Your task to perform on an android device: Open settings Image 0: 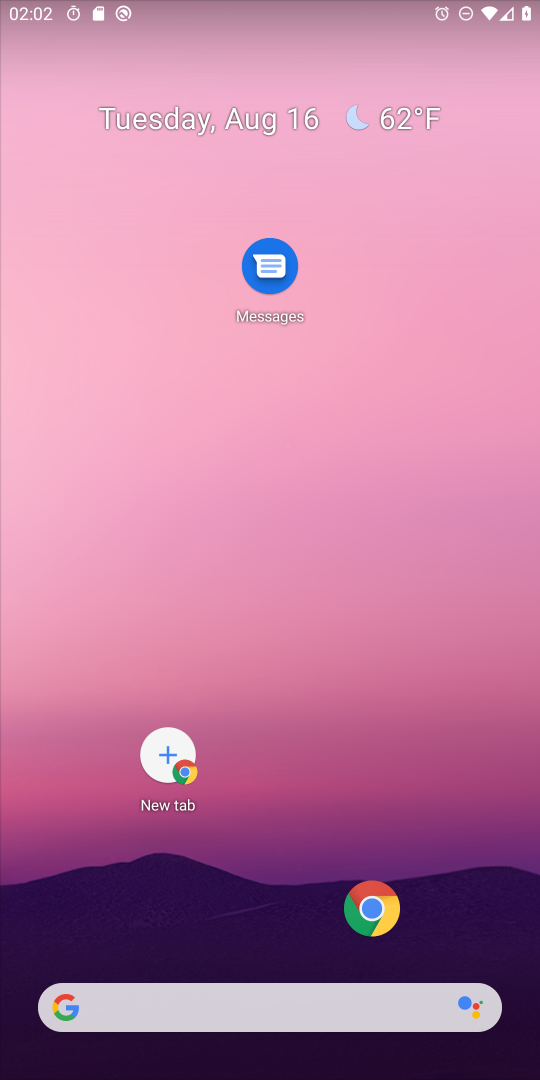
Step 0: drag from (286, 917) to (368, 72)
Your task to perform on an android device: Open settings Image 1: 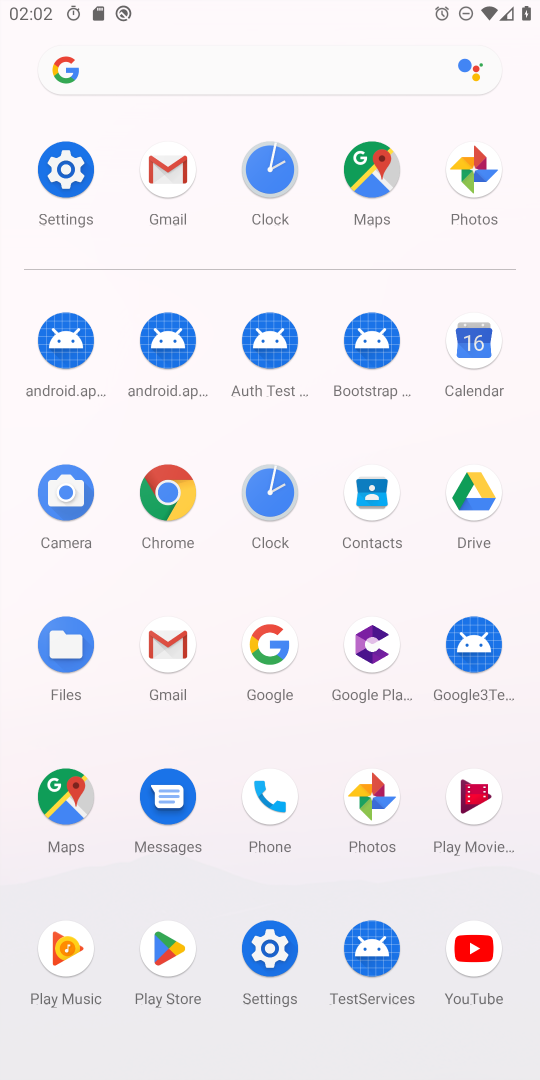
Step 1: click (72, 188)
Your task to perform on an android device: Open settings Image 2: 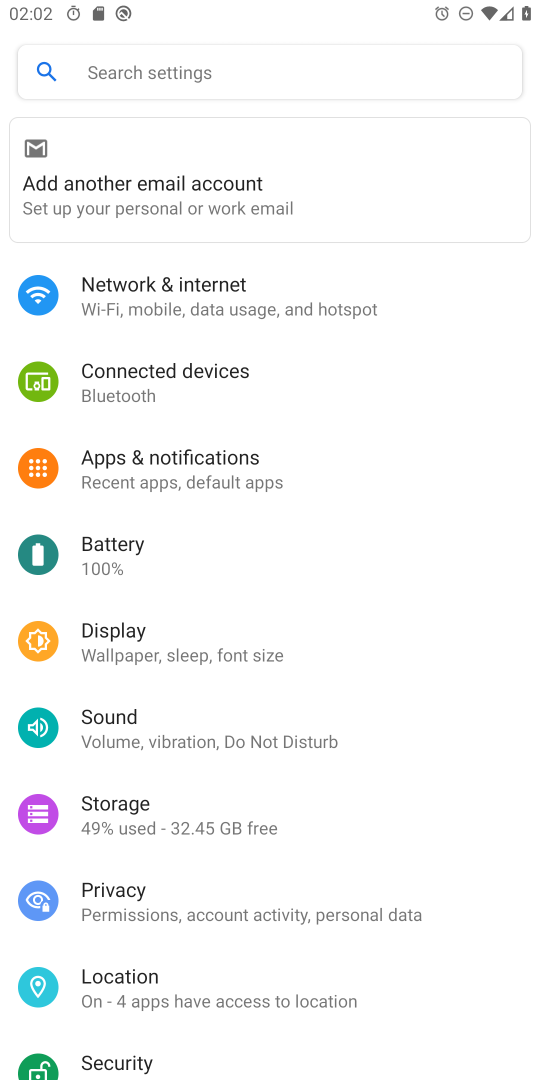
Step 2: task complete